Your task to perform on an android device: Open the calendar app, open the side menu, and click the "Day" option Image 0: 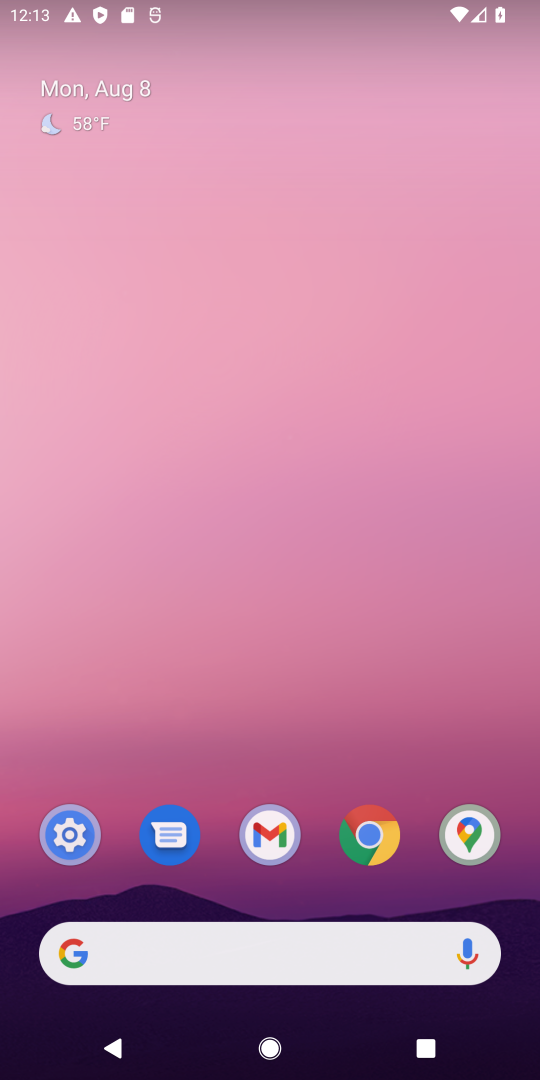
Step 0: press home button
Your task to perform on an android device: Open the calendar app, open the side menu, and click the "Day" option Image 1: 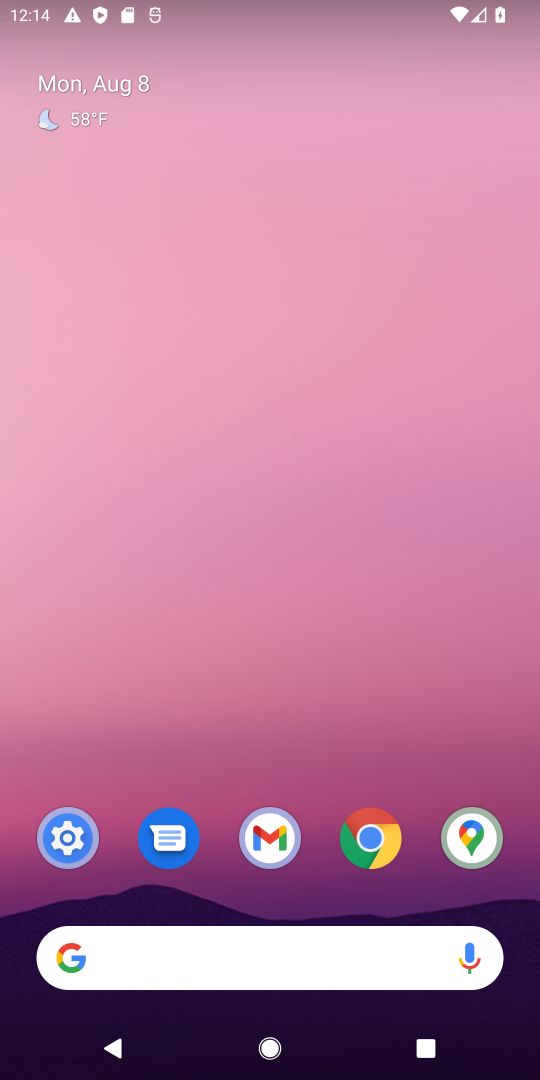
Step 1: drag from (211, 896) to (315, 114)
Your task to perform on an android device: Open the calendar app, open the side menu, and click the "Day" option Image 2: 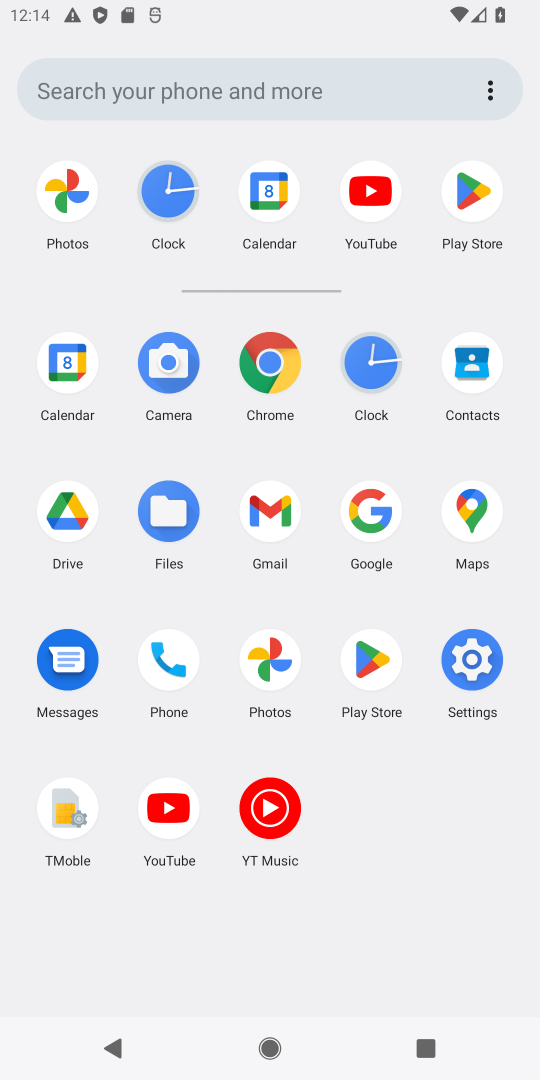
Step 2: click (65, 363)
Your task to perform on an android device: Open the calendar app, open the side menu, and click the "Day" option Image 3: 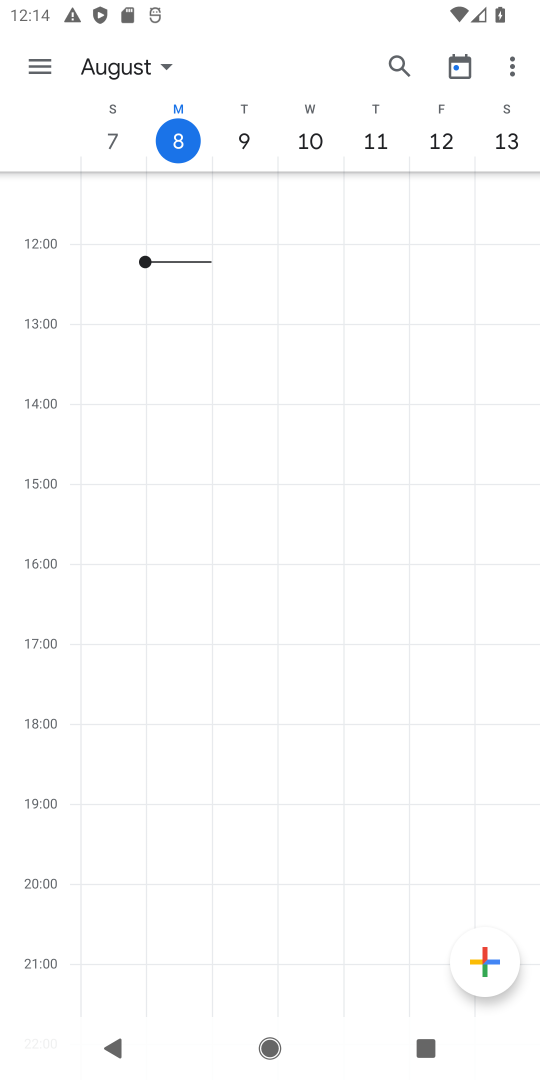
Step 3: click (37, 62)
Your task to perform on an android device: Open the calendar app, open the side menu, and click the "Day" option Image 4: 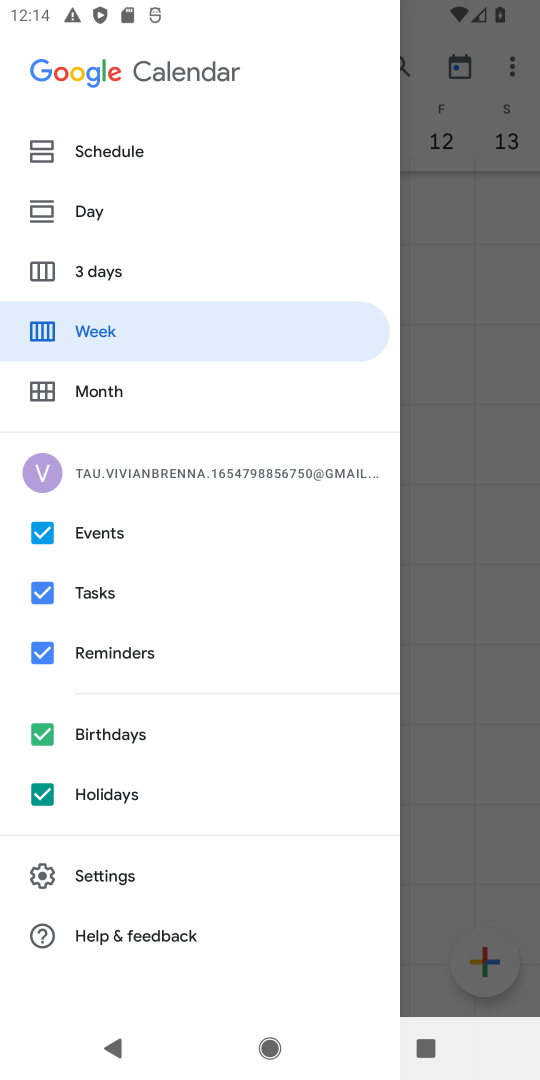
Step 4: click (80, 209)
Your task to perform on an android device: Open the calendar app, open the side menu, and click the "Day" option Image 5: 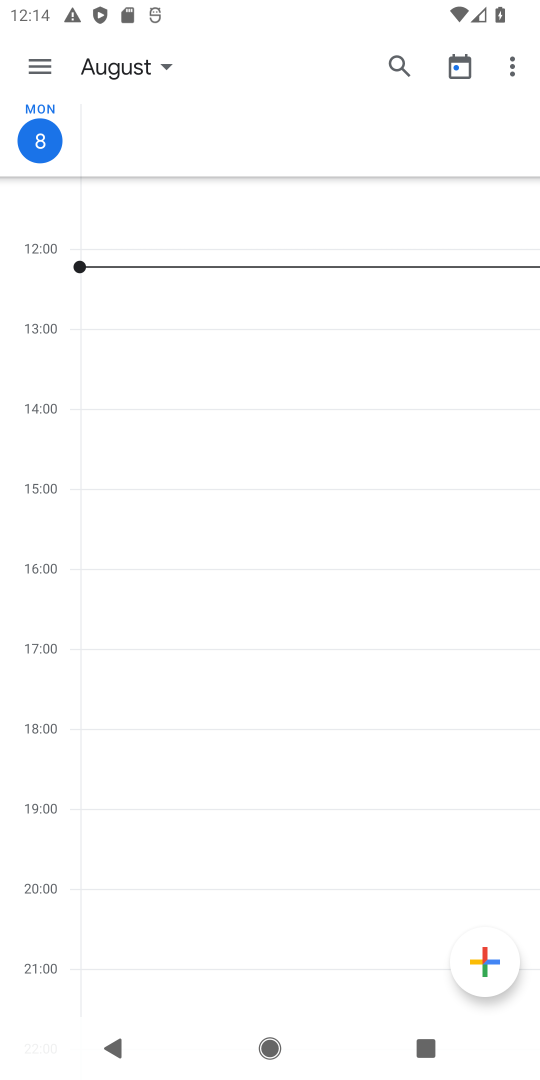
Step 5: task complete